Your task to perform on an android device: Open network settings Image 0: 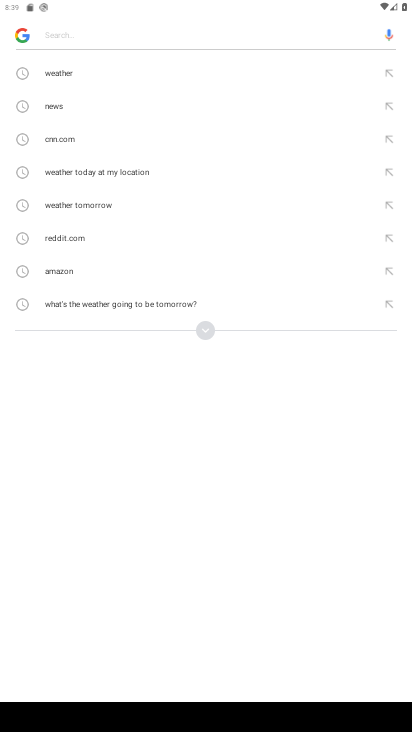
Step 0: press home button
Your task to perform on an android device: Open network settings Image 1: 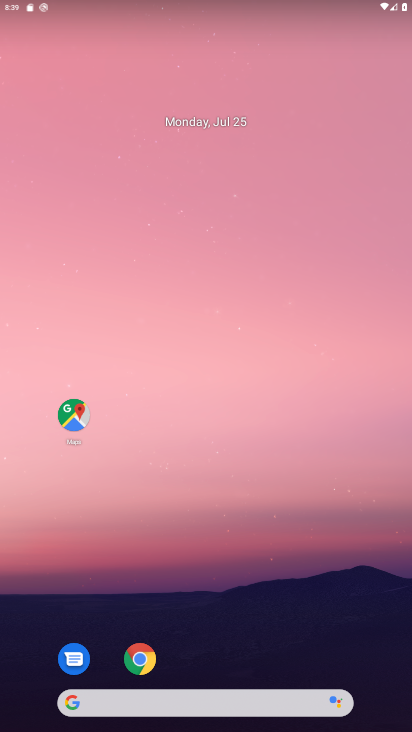
Step 1: drag from (188, 644) to (210, 154)
Your task to perform on an android device: Open network settings Image 2: 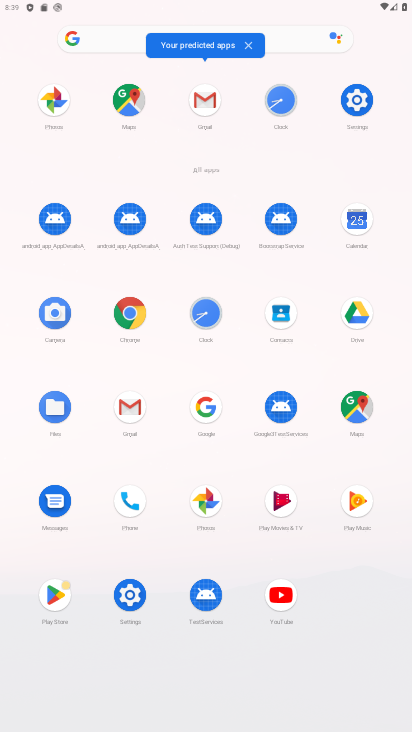
Step 2: click (346, 112)
Your task to perform on an android device: Open network settings Image 3: 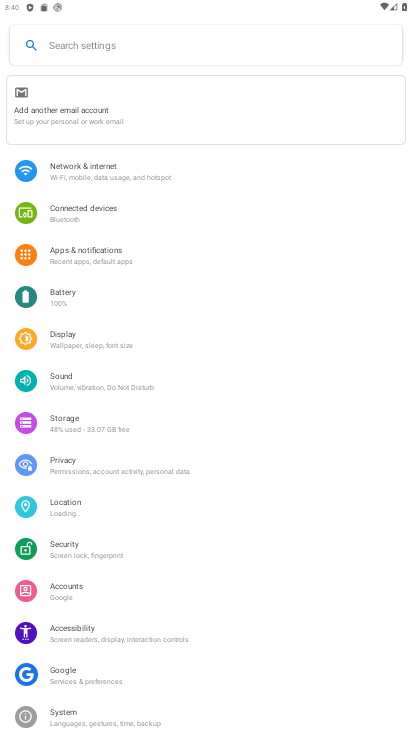
Step 3: click (111, 163)
Your task to perform on an android device: Open network settings Image 4: 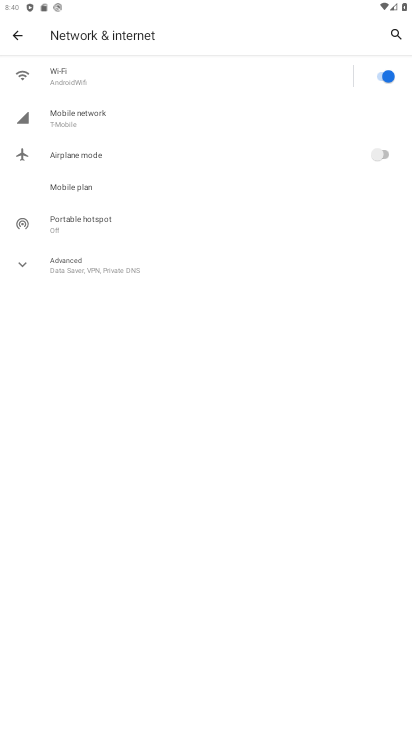
Step 4: task complete